Your task to perform on an android device: Open settings Image 0: 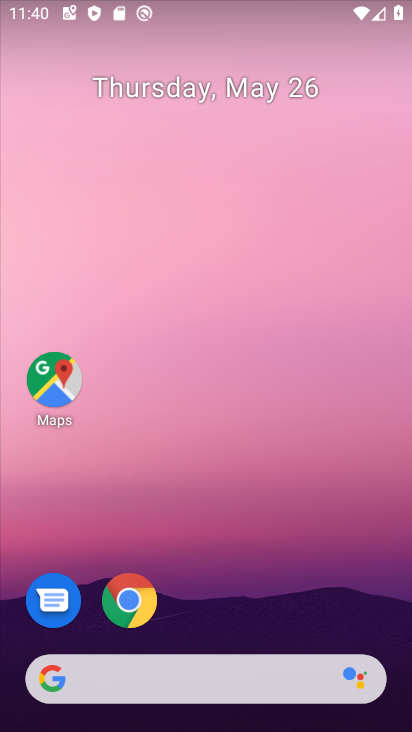
Step 0: drag from (220, 287) to (228, 41)
Your task to perform on an android device: Open settings Image 1: 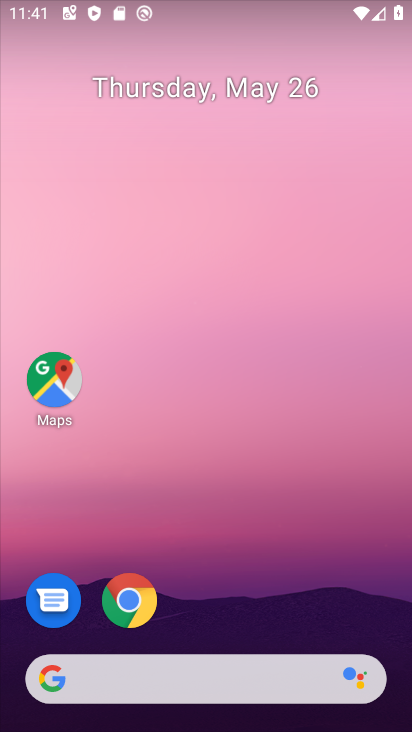
Step 1: drag from (188, 589) to (206, 80)
Your task to perform on an android device: Open settings Image 2: 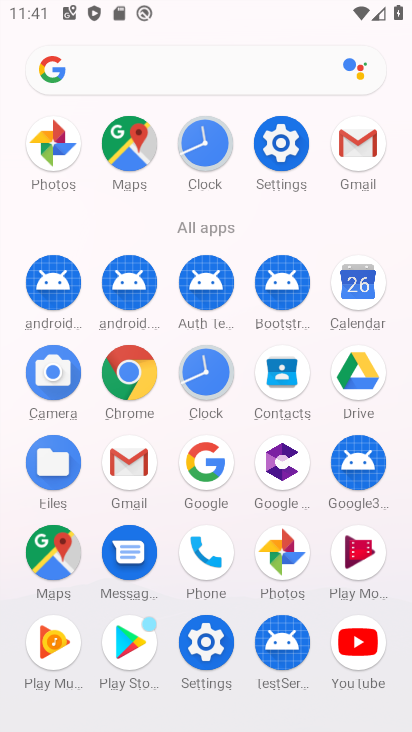
Step 2: click (293, 141)
Your task to perform on an android device: Open settings Image 3: 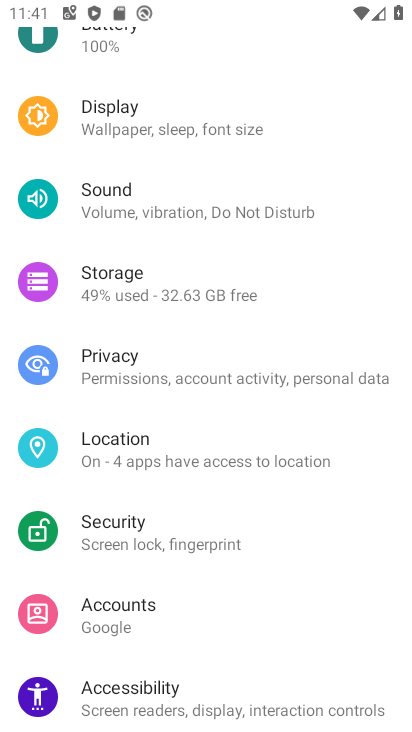
Step 3: task complete